Your task to perform on an android device: Go to notification settings Image 0: 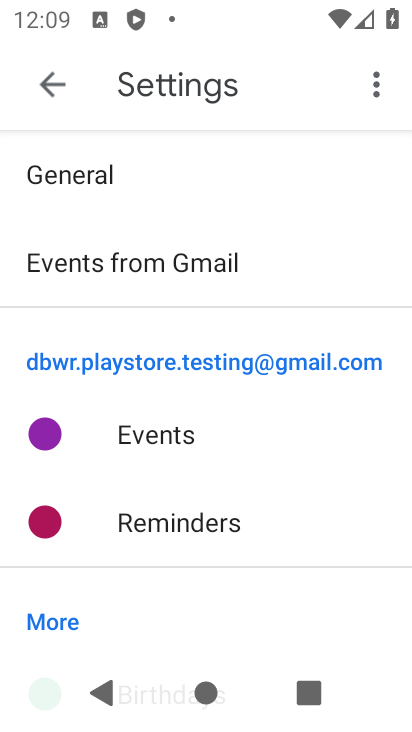
Step 0: press home button
Your task to perform on an android device: Go to notification settings Image 1: 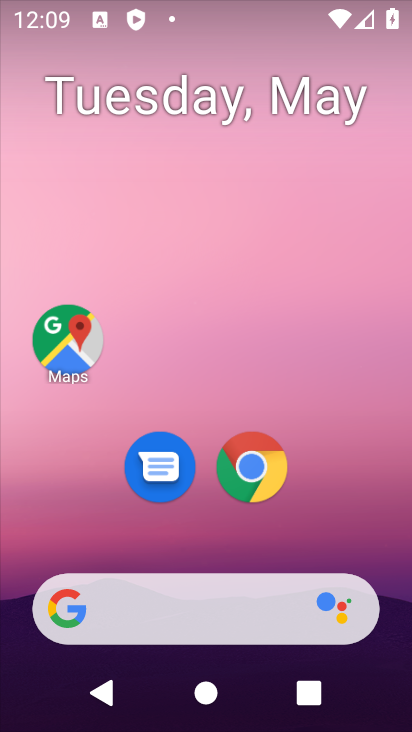
Step 1: drag from (314, 530) to (294, 79)
Your task to perform on an android device: Go to notification settings Image 2: 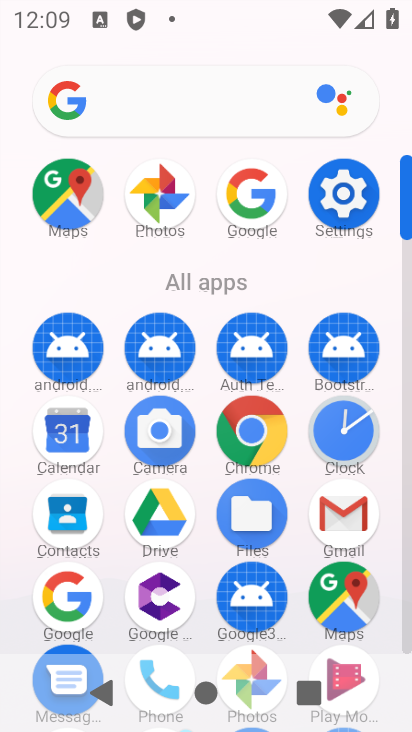
Step 2: click (357, 198)
Your task to perform on an android device: Go to notification settings Image 3: 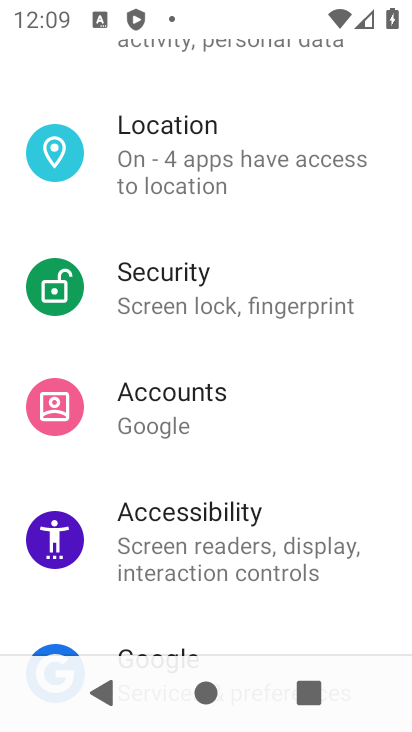
Step 3: drag from (295, 219) to (277, 518)
Your task to perform on an android device: Go to notification settings Image 4: 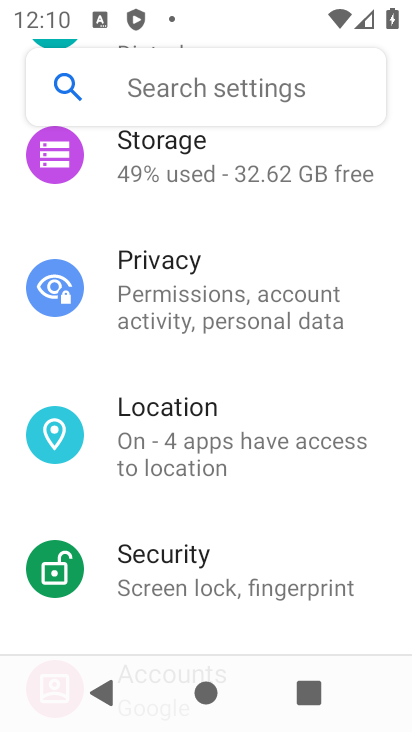
Step 4: drag from (276, 244) to (243, 660)
Your task to perform on an android device: Go to notification settings Image 5: 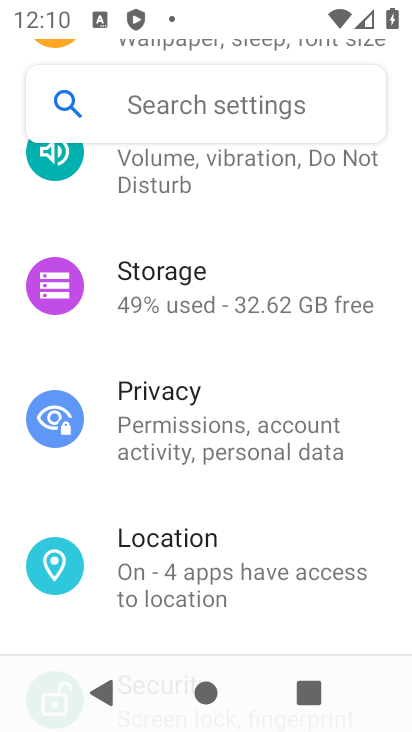
Step 5: drag from (255, 233) to (231, 569)
Your task to perform on an android device: Go to notification settings Image 6: 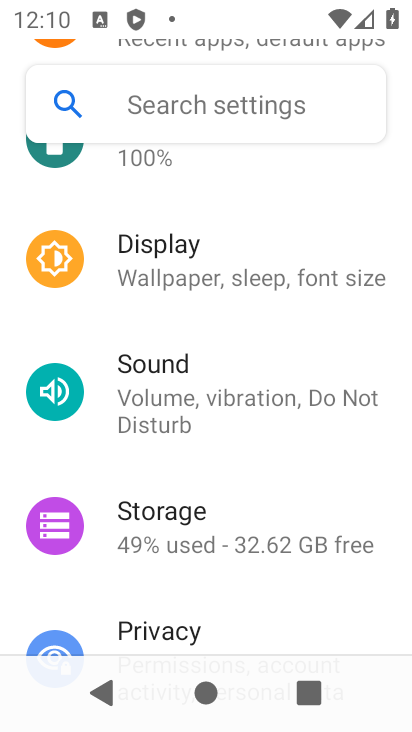
Step 6: drag from (258, 212) to (250, 595)
Your task to perform on an android device: Go to notification settings Image 7: 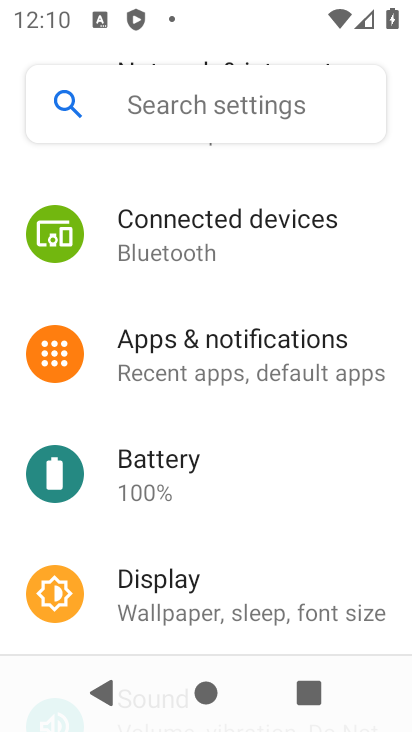
Step 7: click (239, 356)
Your task to perform on an android device: Go to notification settings Image 8: 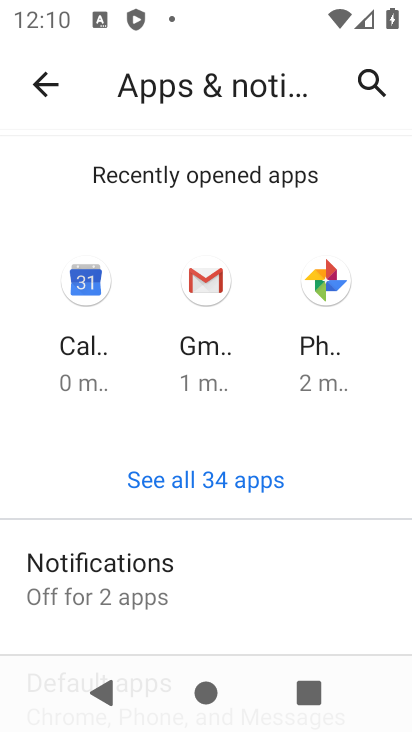
Step 8: task complete